Your task to perform on an android device: see creations saved in the google photos Image 0: 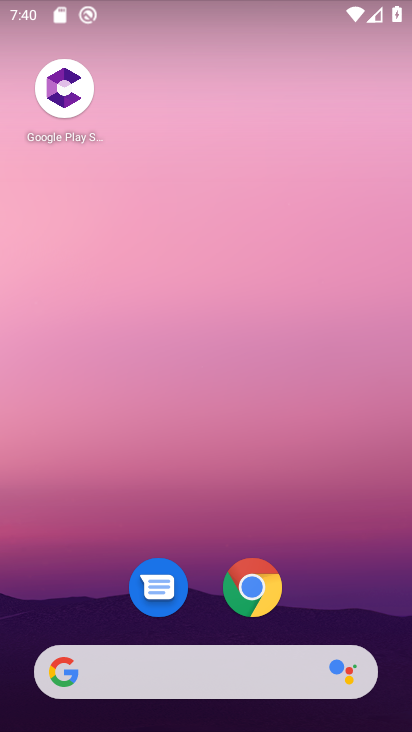
Step 0: drag from (381, 610) to (254, 89)
Your task to perform on an android device: see creations saved in the google photos Image 1: 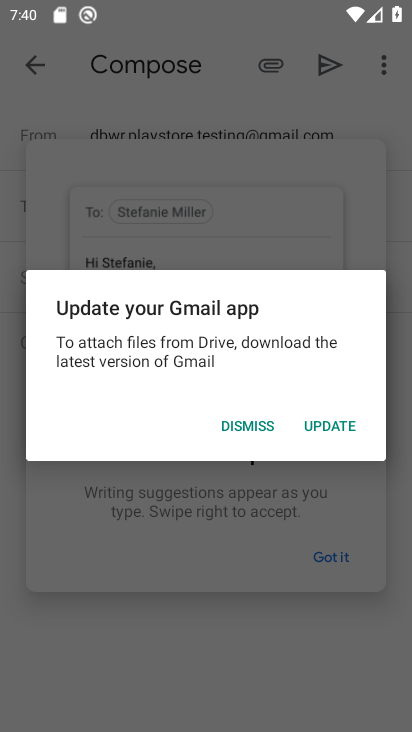
Step 1: press home button
Your task to perform on an android device: see creations saved in the google photos Image 2: 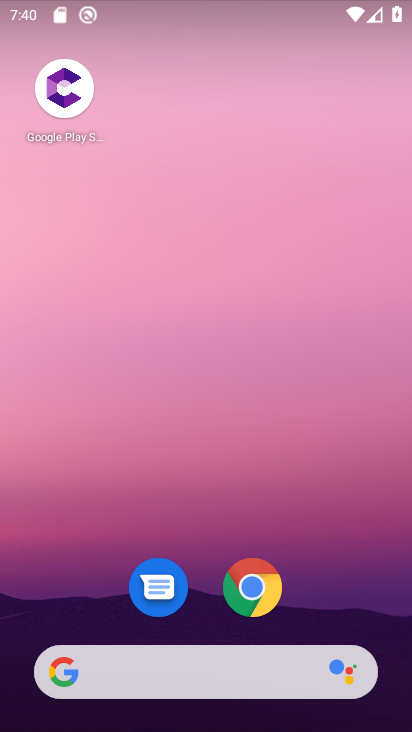
Step 2: drag from (348, 601) to (194, 0)
Your task to perform on an android device: see creations saved in the google photos Image 3: 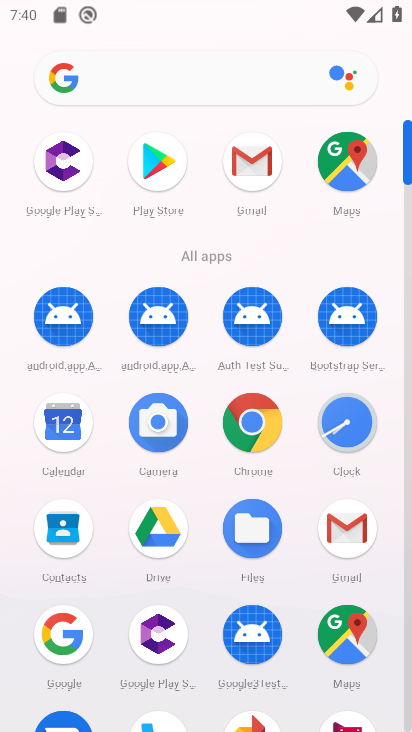
Step 3: drag from (320, 638) to (291, 359)
Your task to perform on an android device: see creations saved in the google photos Image 4: 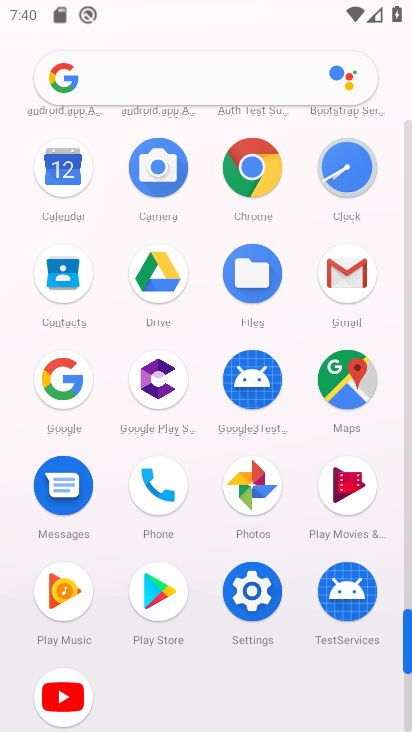
Step 4: click (275, 493)
Your task to perform on an android device: see creations saved in the google photos Image 5: 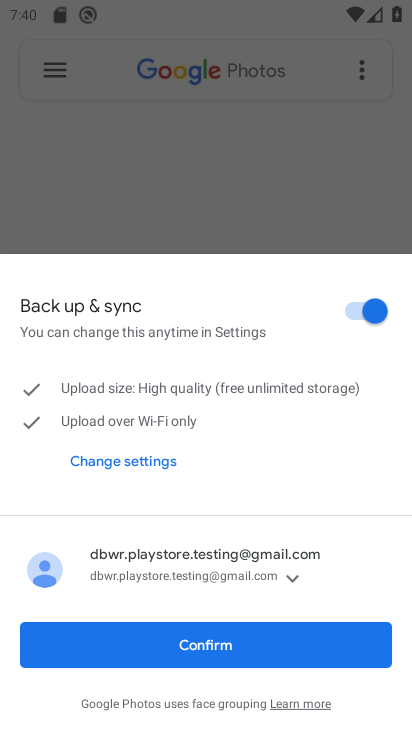
Step 5: click (222, 639)
Your task to perform on an android device: see creations saved in the google photos Image 6: 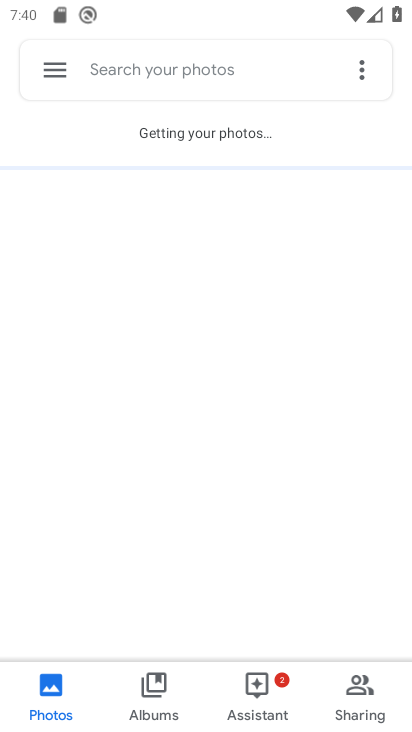
Step 6: click (182, 67)
Your task to perform on an android device: see creations saved in the google photos Image 7: 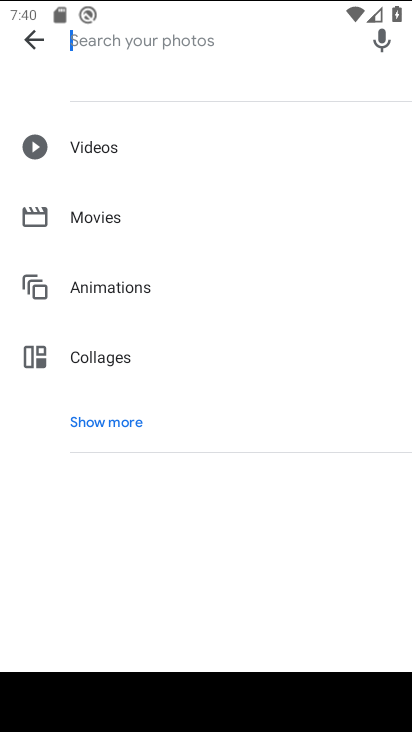
Step 7: click (77, 412)
Your task to perform on an android device: see creations saved in the google photos Image 8: 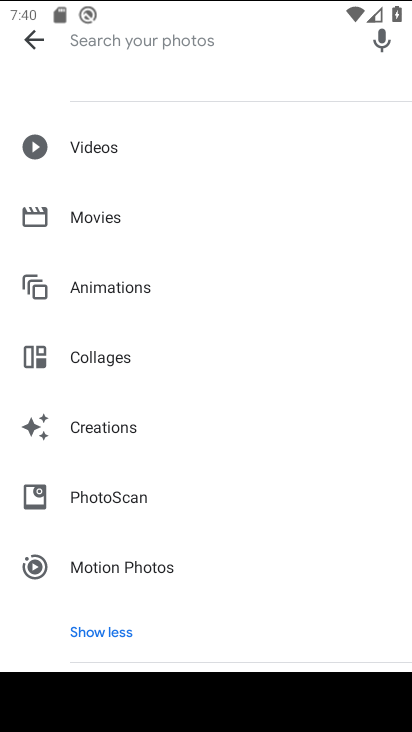
Step 8: click (121, 439)
Your task to perform on an android device: see creations saved in the google photos Image 9: 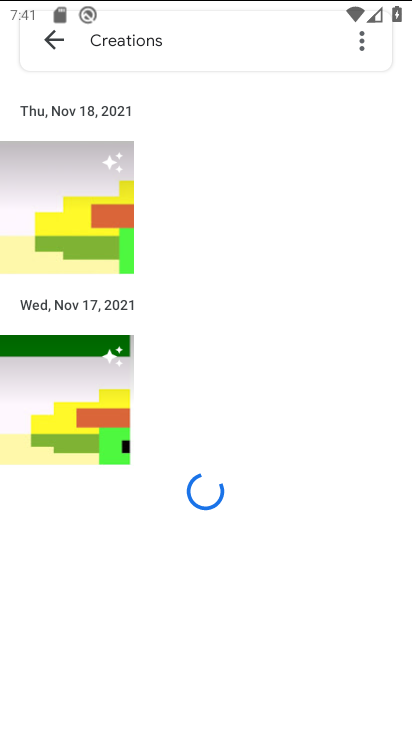
Step 9: task complete